Your task to perform on an android device: Open Youtube and go to "Your channel" Image 0: 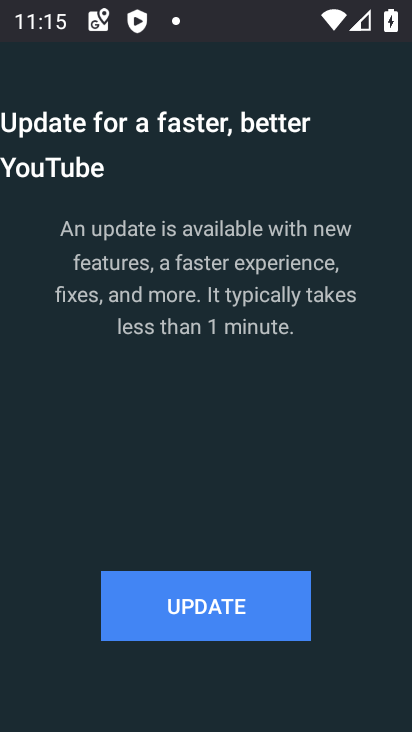
Step 0: press back button
Your task to perform on an android device: Open Youtube and go to "Your channel" Image 1: 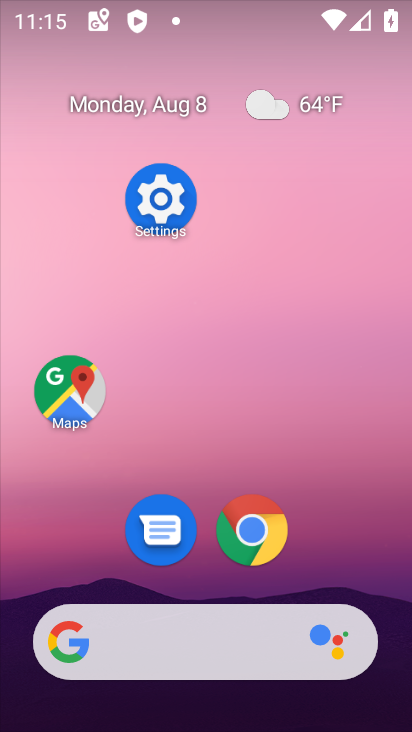
Step 1: drag from (245, 644) to (149, 245)
Your task to perform on an android device: Open Youtube and go to "Your channel" Image 2: 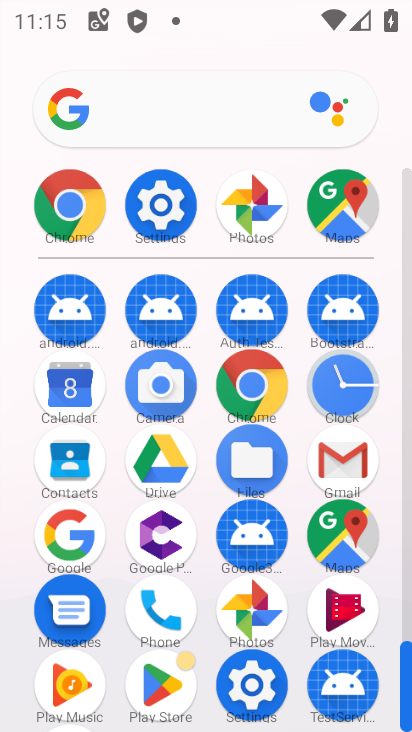
Step 2: click (392, 339)
Your task to perform on an android device: Open Youtube and go to "Your channel" Image 3: 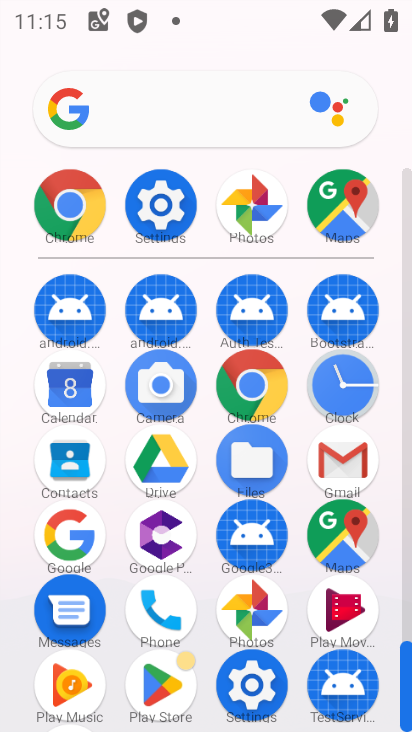
Step 3: drag from (335, 564) to (310, 255)
Your task to perform on an android device: Open Youtube and go to "Your channel" Image 4: 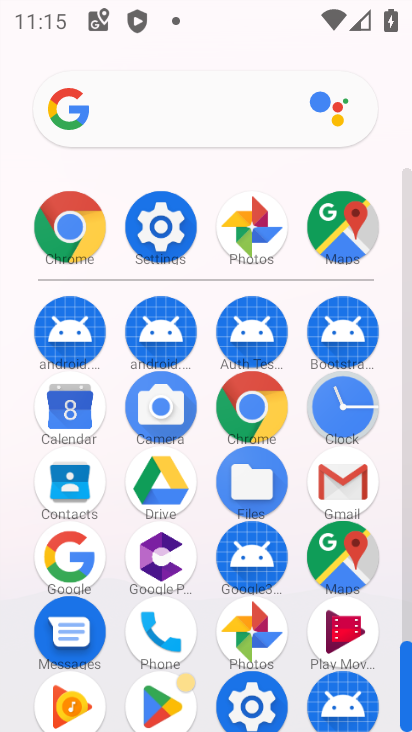
Step 4: click (252, 379)
Your task to perform on an android device: Open Youtube and go to "Your channel" Image 5: 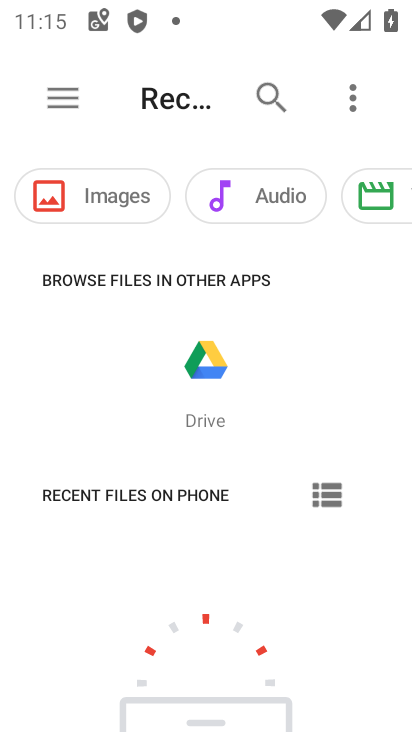
Step 5: press back button
Your task to perform on an android device: Open Youtube and go to "Your channel" Image 6: 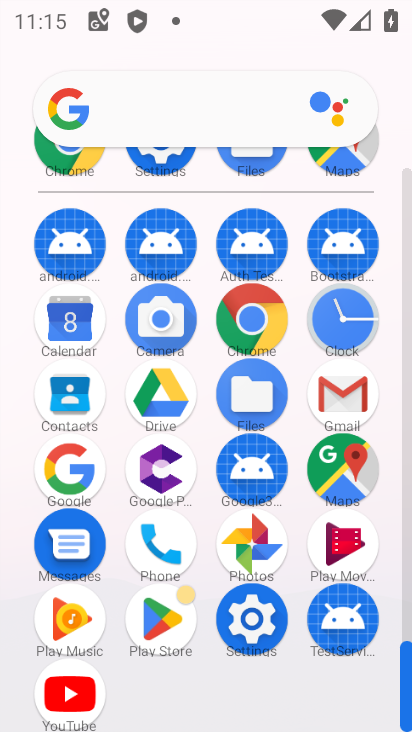
Step 6: click (72, 694)
Your task to perform on an android device: Open Youtube and go to "Your channel" Image 7: 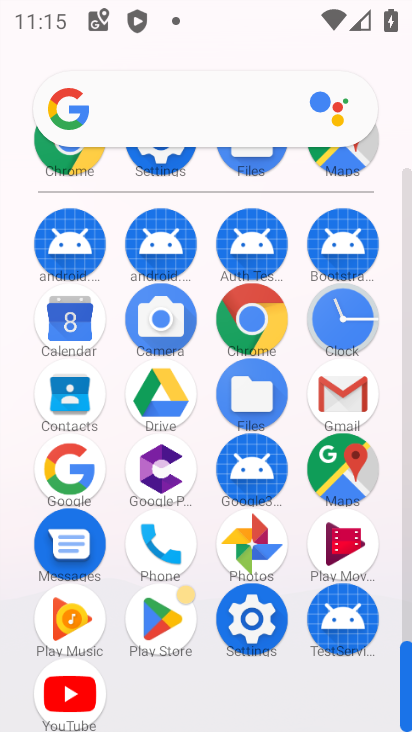
Step 7: click (72, 694)
Your task to perform on an android device: Open Youtube and go to "Your channel" Image 8: 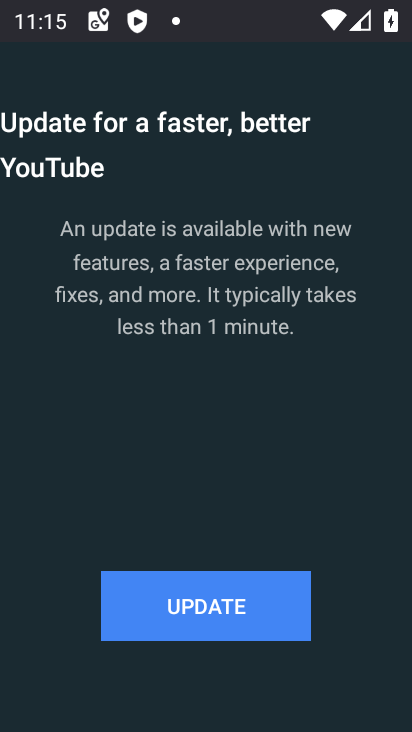
Step 8: press back button
Your task to perform on an android device: Open Youtube and go to "Your channel" Image 9: 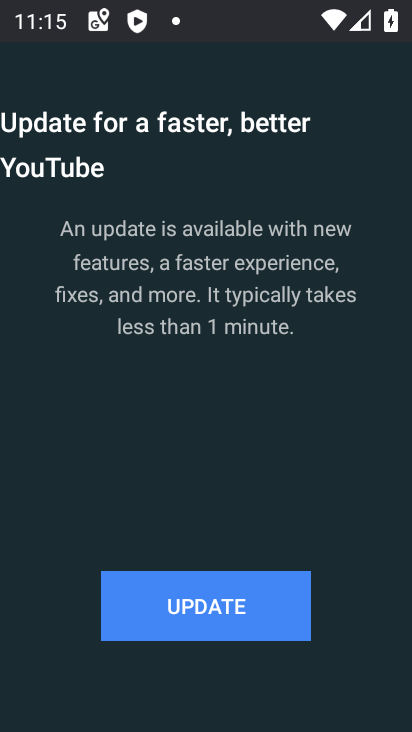
Step 9: press back button
Your task to perform on an android device: Open Youtube and go to "Your channel" Image 10: 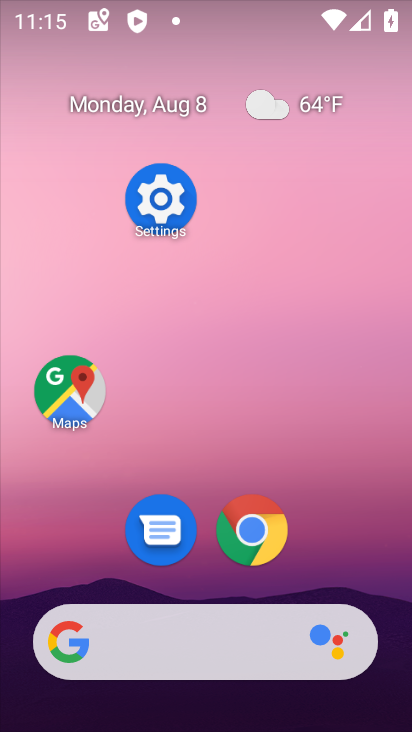
Step 10: drag from (246, 593) to (171, 189)
Your task to perform on an android device: Open Youtube and go to "Your channel" Image 11: 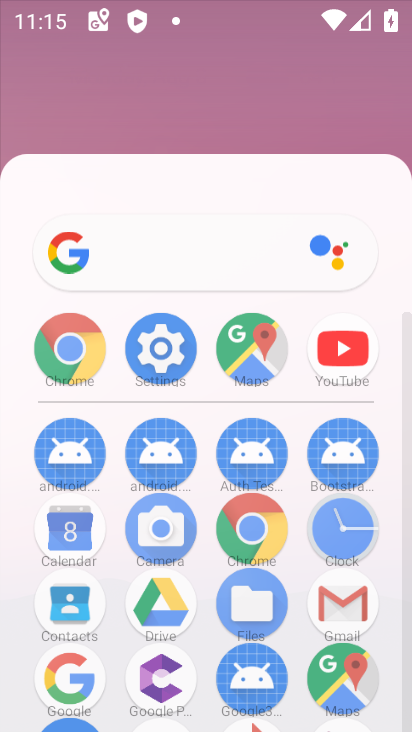
Step 11: drag from (253, 509) to (241, 176)
Your task to perform on an android device: Open Youtube and go to "Your channel" Image 12: 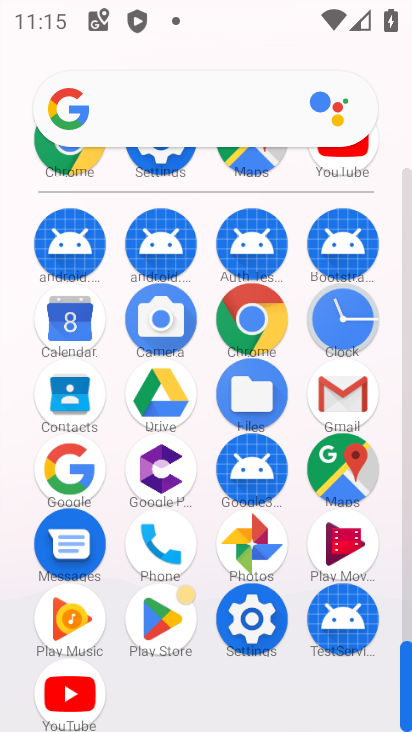
Step 12: click (64, 704)
Your task to perform on an android device: Open Youtube and go to "Your channel" Image 13: 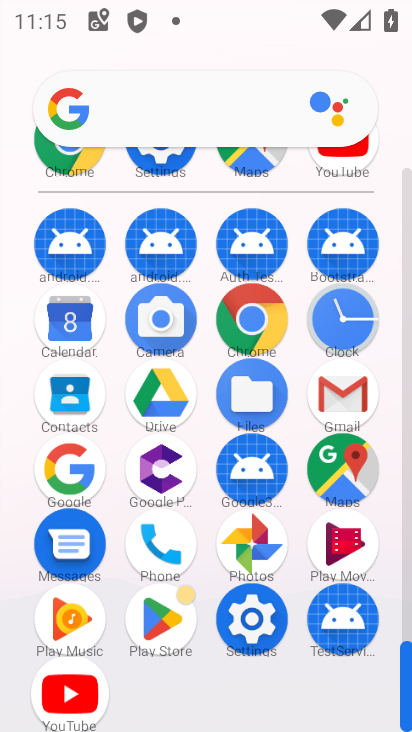
Step 13: click (66, 701)
Your task to perform on an android device: Open Youtube and go to "Your channel" Image 14: 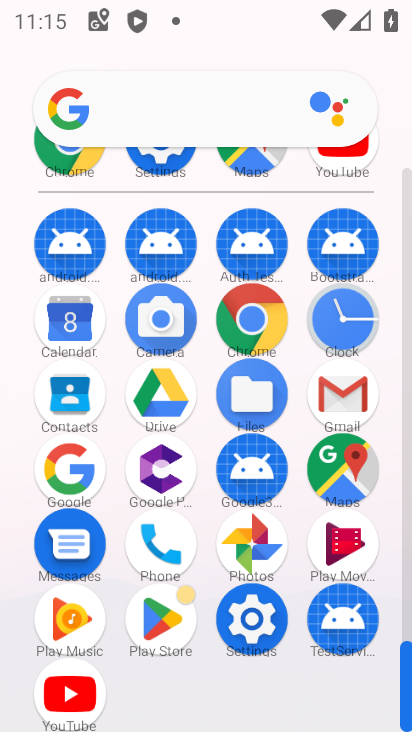
Step 14: click (74, 701)
Your task to perform on an android device: Open Youtube and go to "Your channel" Image 15: 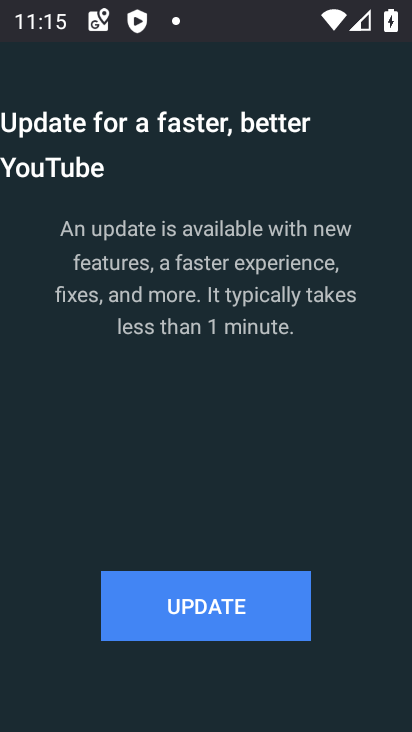
Step 15: click (174, 593)
Your task to perform on an android device: Open Youtube and go to "Your channel" Image 16: 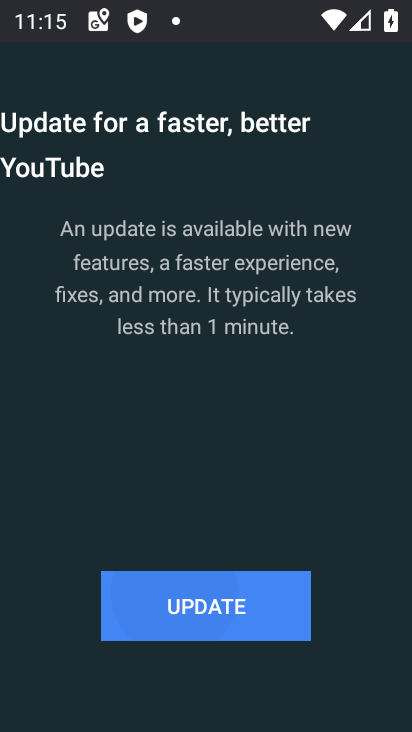
Step 16: click (174, 593)
Your task to perform on an android device: Open Youtube and go to "Your channel" Image 17: 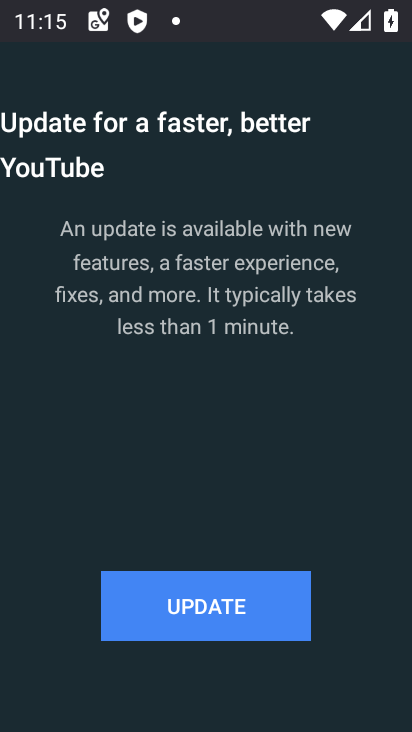
Step 17: click (174, 594)
Your task to perform on an android device: Open Youtube and go to "Your channel" Image 18: 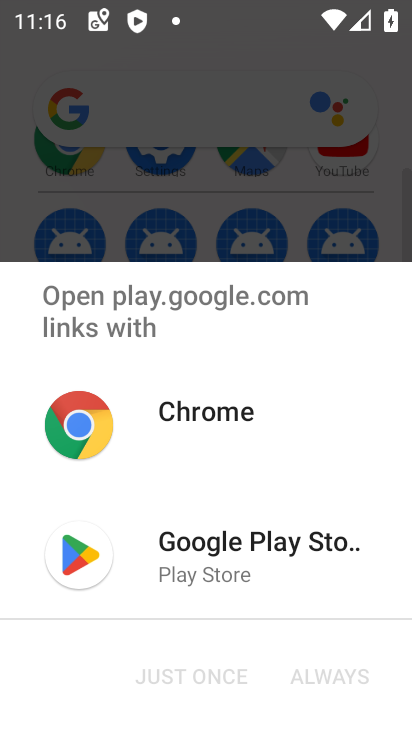
Step 18: click (210, 559)
Your task to perform on an android device: Open Youtube and go to "Your channel" Image 19: 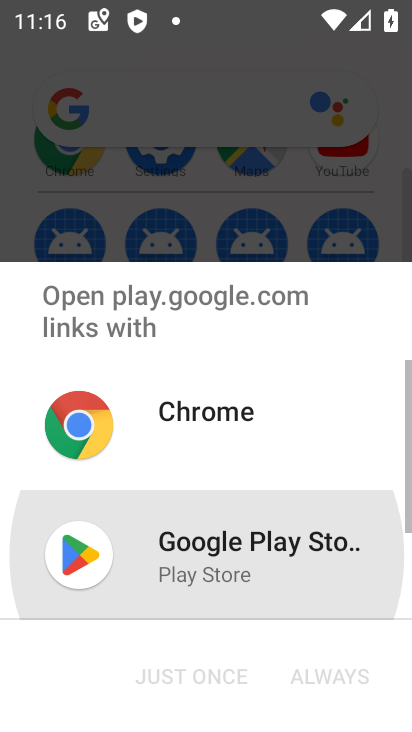
Step 19: click (210, 559)
Your task to perform on an android device: Open Youtube and go to "Your channel" Image 20: 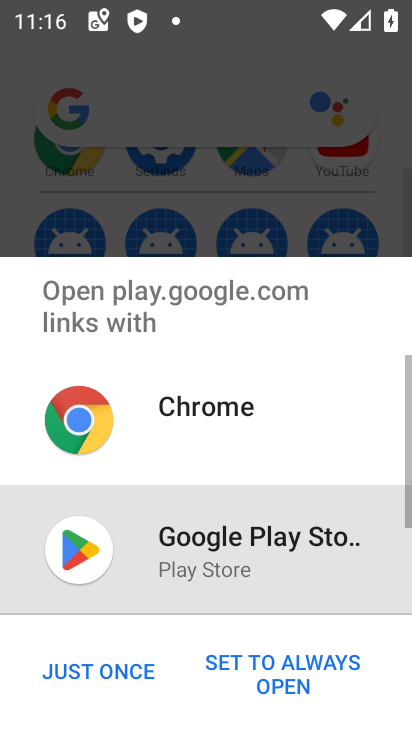
Step 20: click (215, 556)
Your task to perform on an android device: Open Youtube and go to "Your channel" Image 21: 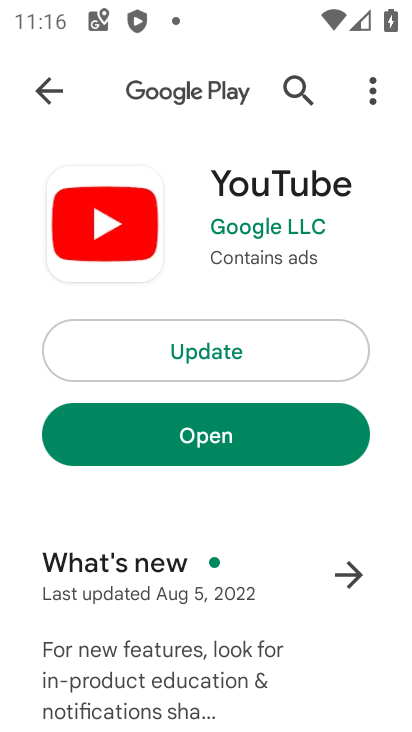
Step 21: click (222, 441)
Your task to perform on an android device: Open Youtube and go to "Your channel" Image 22: 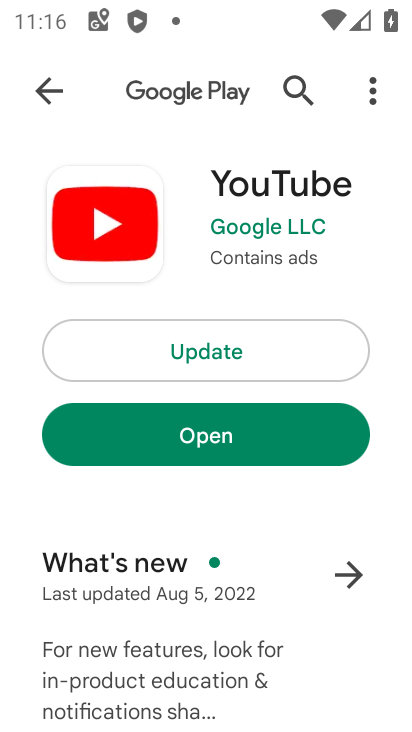
Step 22: click (222, 441)
Your task to perform on an android device: Open Youtube and go to "Your channel" Image 23: 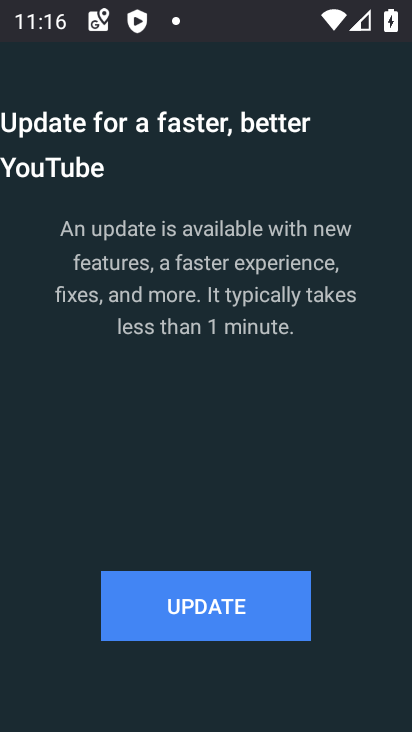
Step 23: task complete